Your task to perform on an android device: delete the emails in spam in the gmail app Image 0: 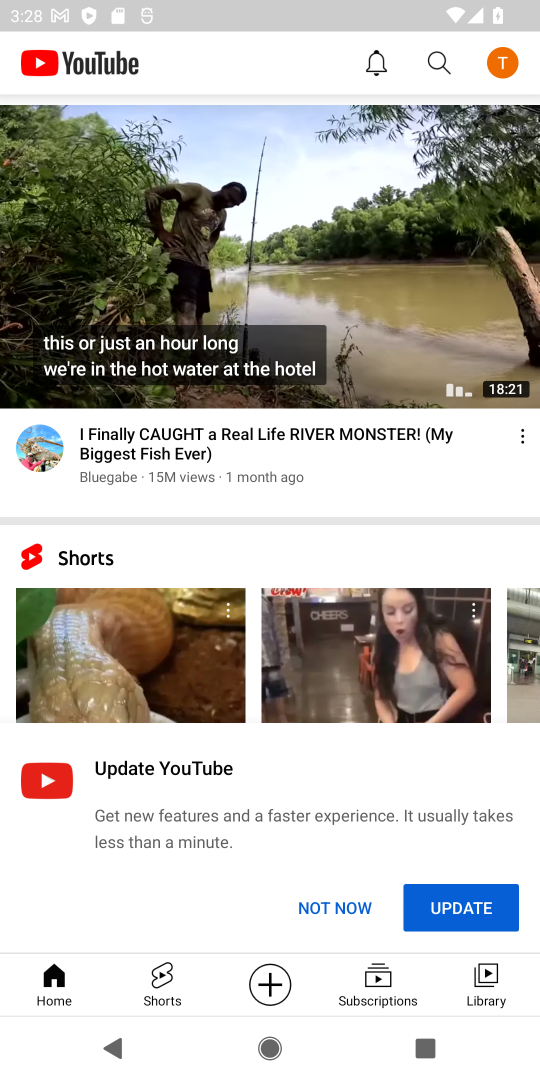
Step 0: press home button
Your task to perform on an android device: delete the emails in spam in the gmail app Image 1: 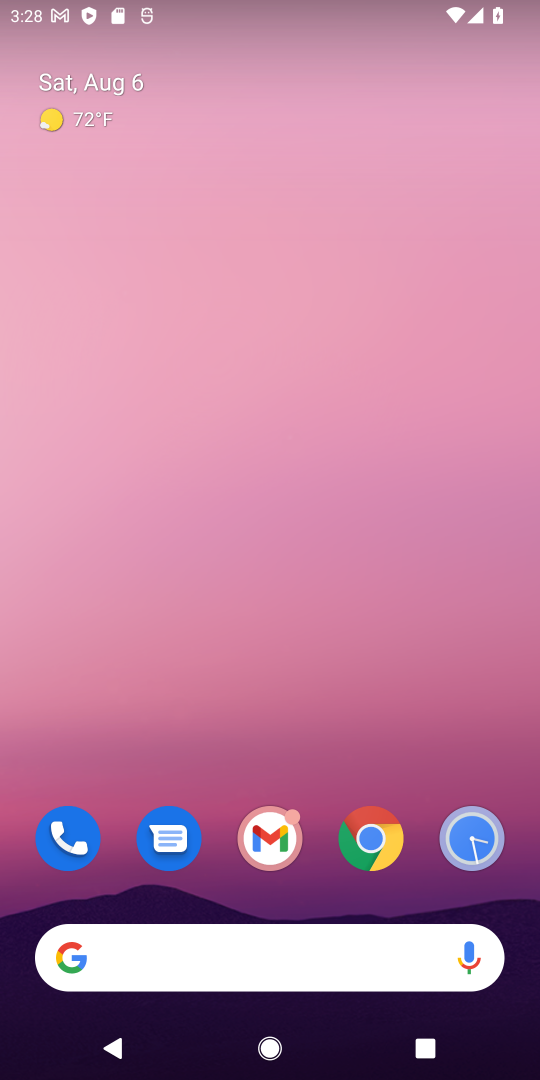
Step 1: click (267, 823)
Your task to perform on an android device: delete the emails in spam in the gmail app Image 2: 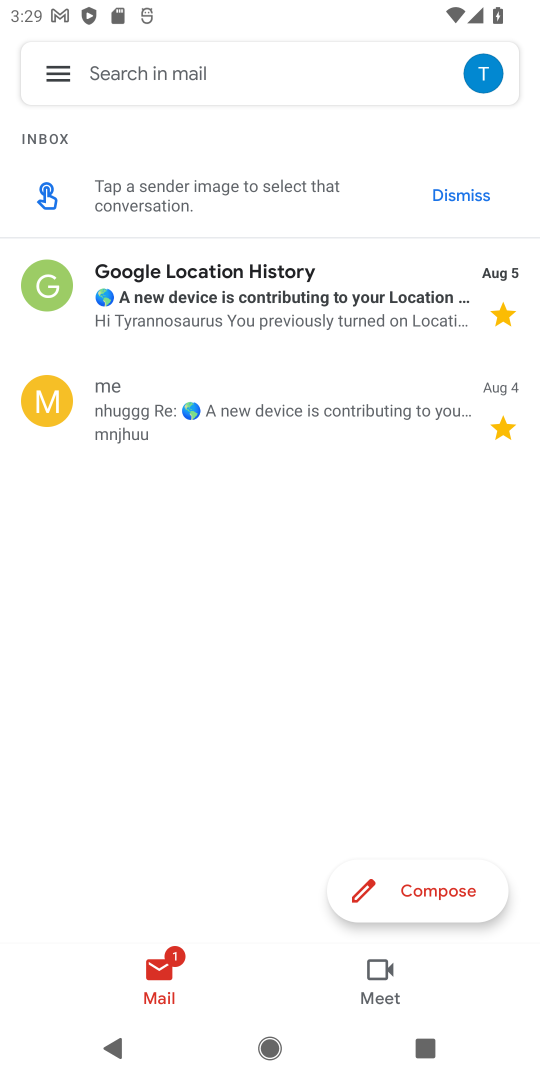
Step 2: click (59, 74)
Your task to perform on an android device: delete the emails in spam in the gmail app Image 3: 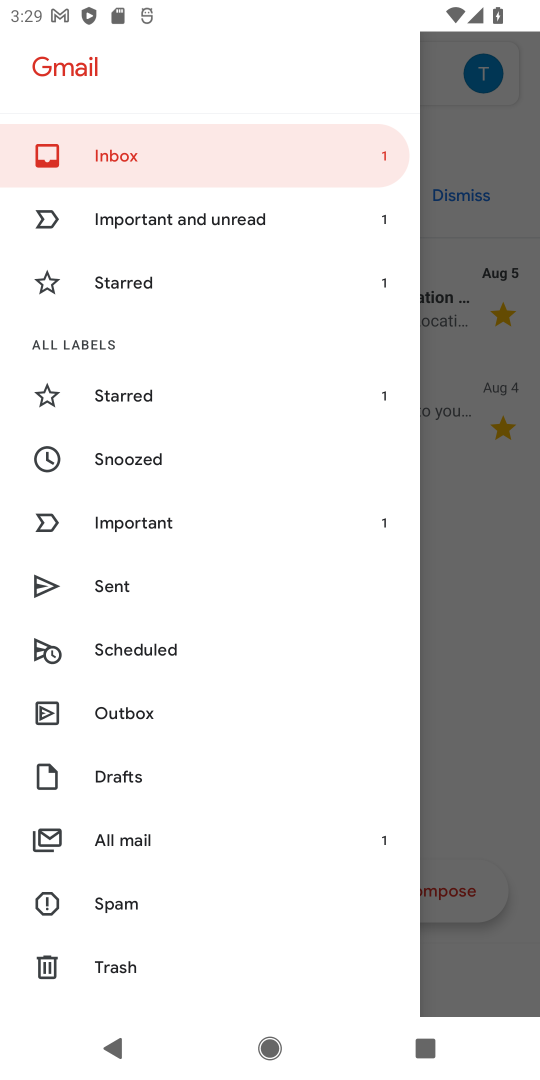
Step 3: click (107, 902)
Your task to perform on an android device: delete the emails in spam in the gmail app Image 4: 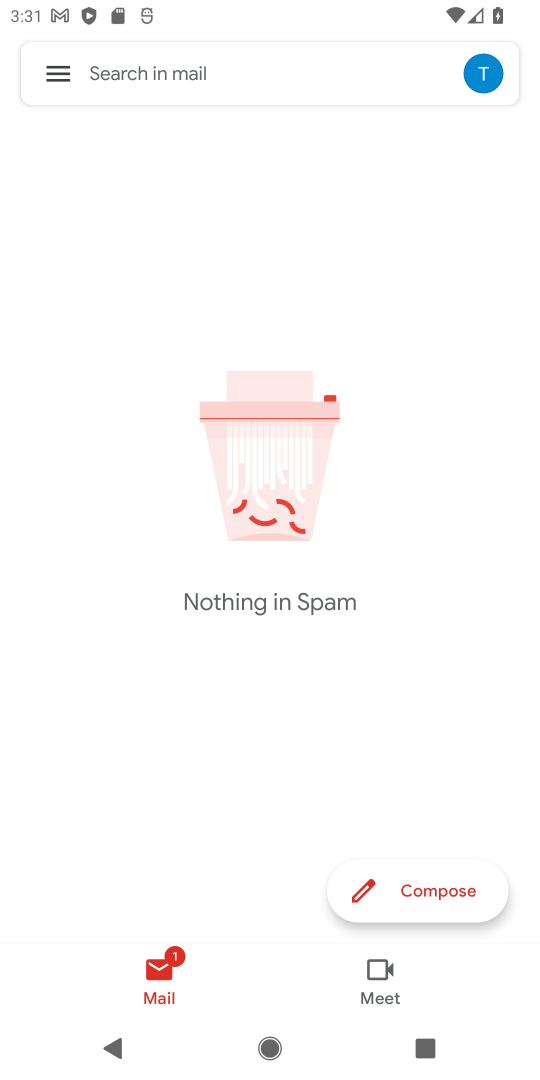
Step 4: task complete